Your task to perform on an android device: Go to Reddit.com Image 0: 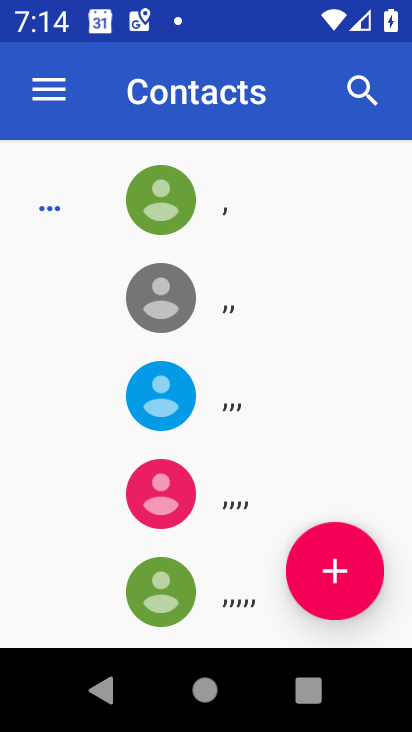
Step 0: press home button
Your task to perform on an android device: Go to Reddit.com Image 1: 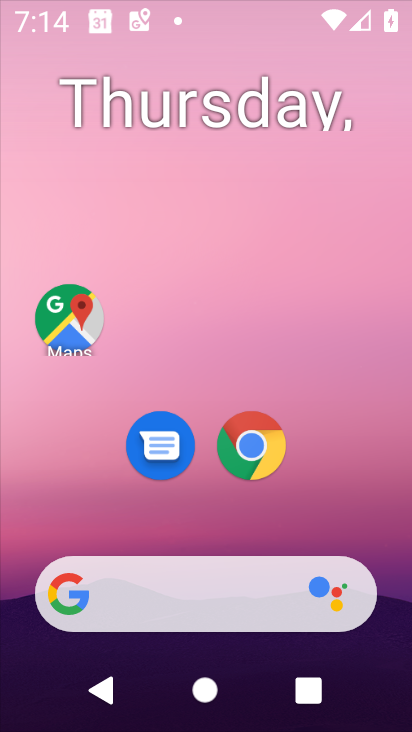
Step 1: drag from (369, 644) to (313, 138)
Your task to perform on an android device: Go to Reddit.com Image 2: 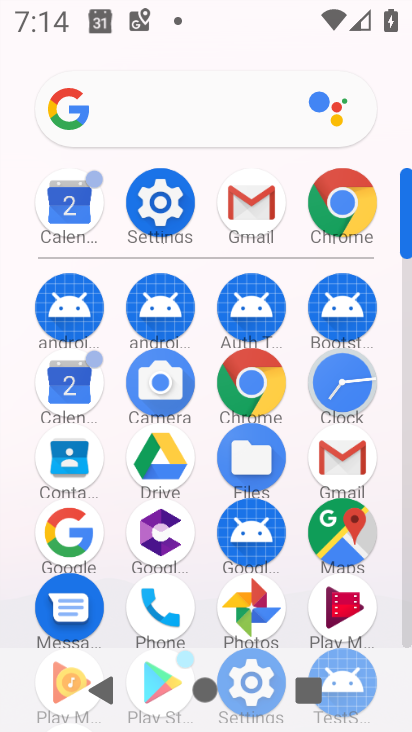
Step 2: click (69, 535)
Your task to perform on an android device: Go to Reddit.com Image 3: 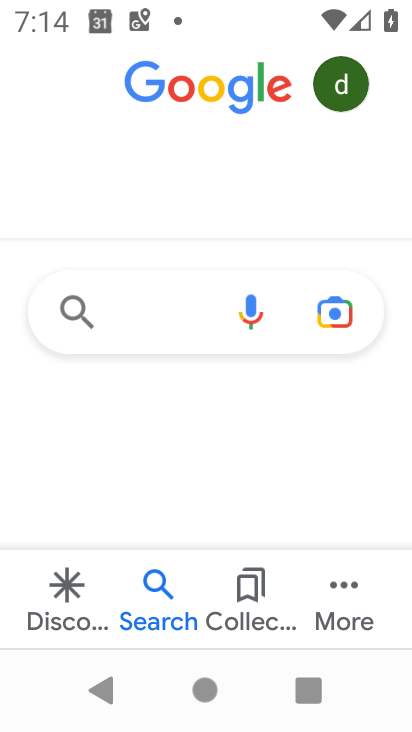
Step 3: click (176, 306)
Your task to perform on an android device: Go to Reddit.com Image 4: 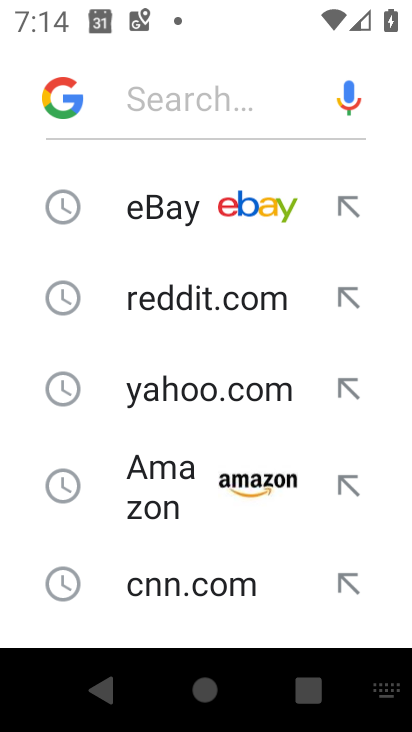
Step 4: click (176, 306)
Your task to perform on an android device: Go to Reddit.com Image 5: 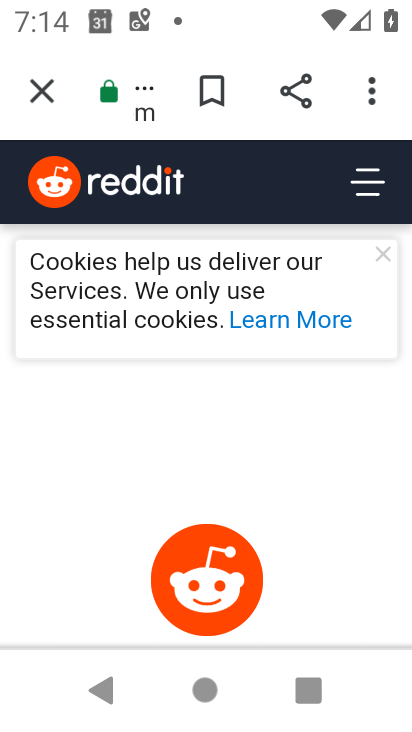
Step 5: task complete